Your task to perform on an android device: star an email in the gmail app Image 0: 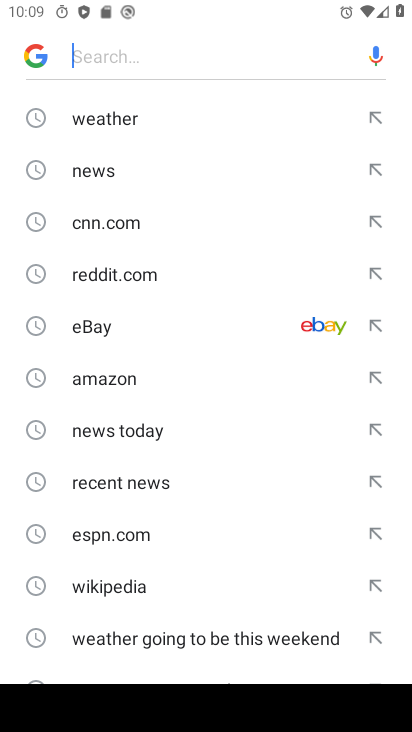
Step 0: press home button
Your task to perform on an android device: star an email in the gmail app Image 1: 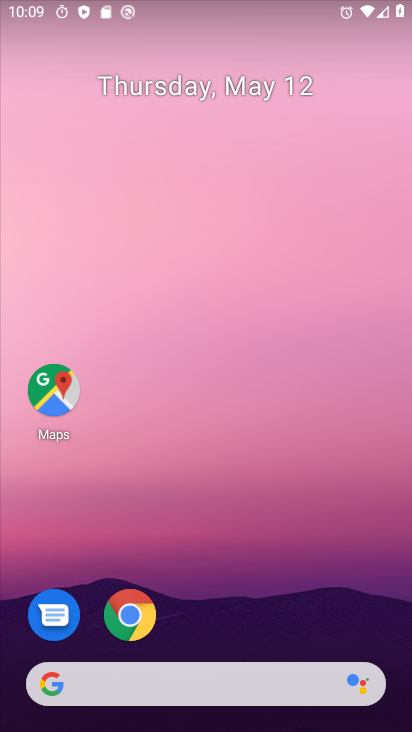
Step 1: drag from (286, 628) to (369, 134)
Your task to perform on an android device: star an email in the gmail app Image 2: 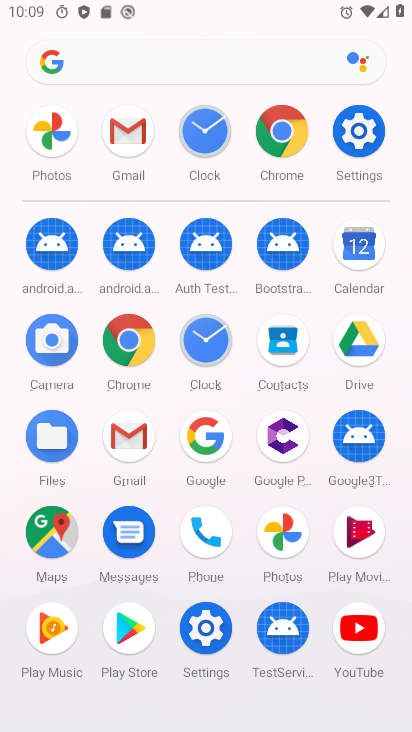
Step 2: click (135, 127)
Your task to perform on an android device: star an email in the gmail app Image 3: 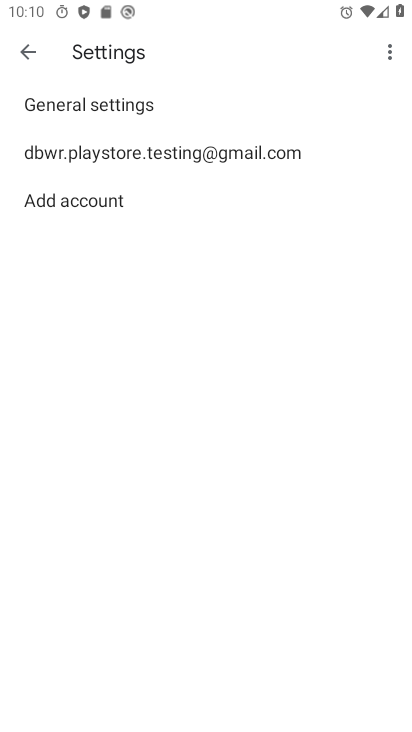
Step 3: click (134, 147)
Your task to perform on an android device: star an email in the gmail app Image 4: 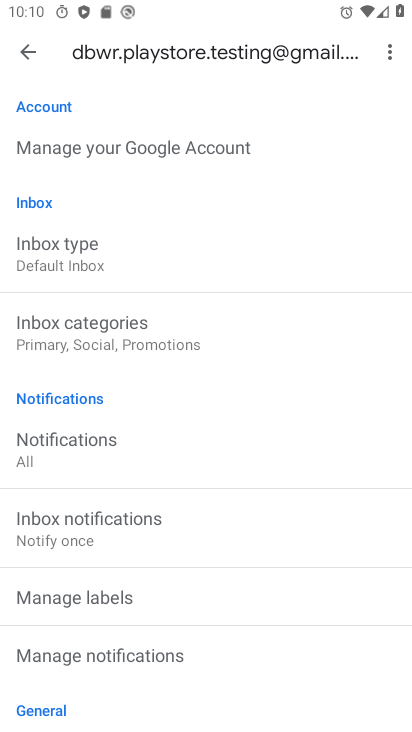
Step 4: click (40, 56)
Your task to perform on an android device: star an email in the gmail app Image 5: 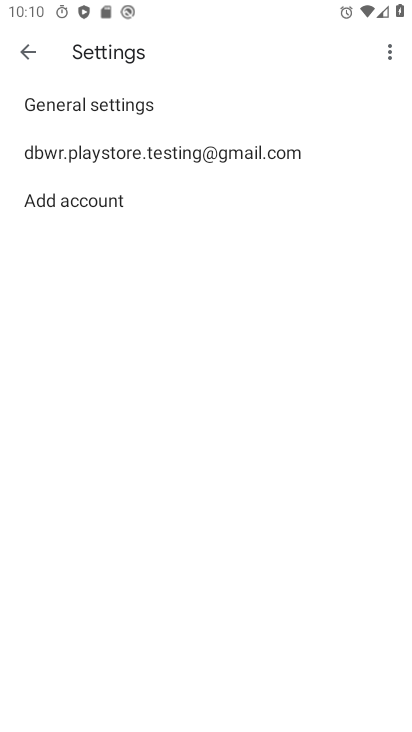
Step 5: click (38, 56)
Your task to perform on an android device: star an email in the gmail app Image 6: 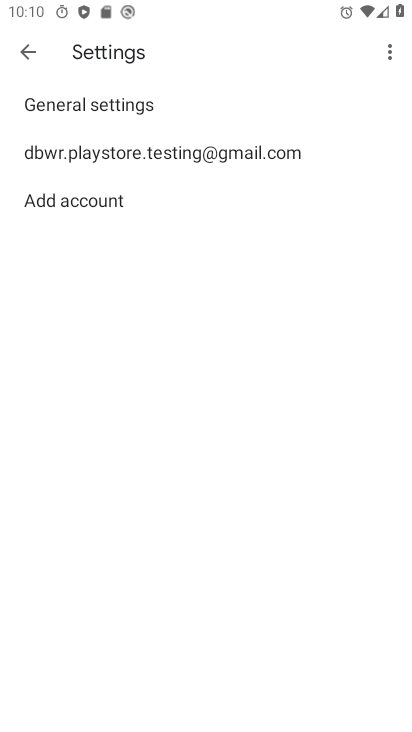
Step 6: click (38, 56)
Your task to perform on an android device: star an email in the gmail app Image 7: 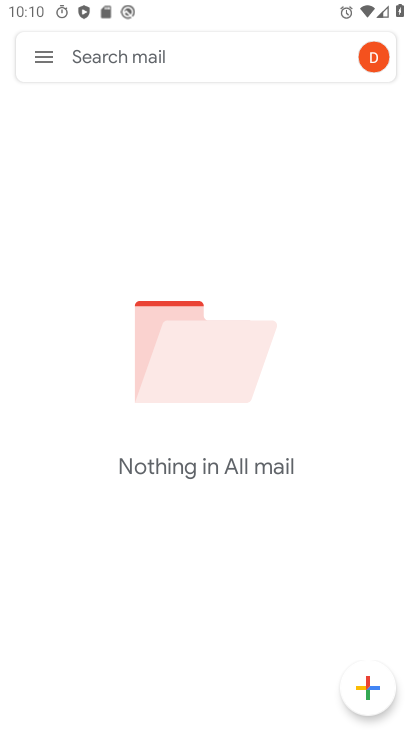
Step 7: click (36, 53)
Your task to perform on an android device: star an email in the gmail app Image 8: 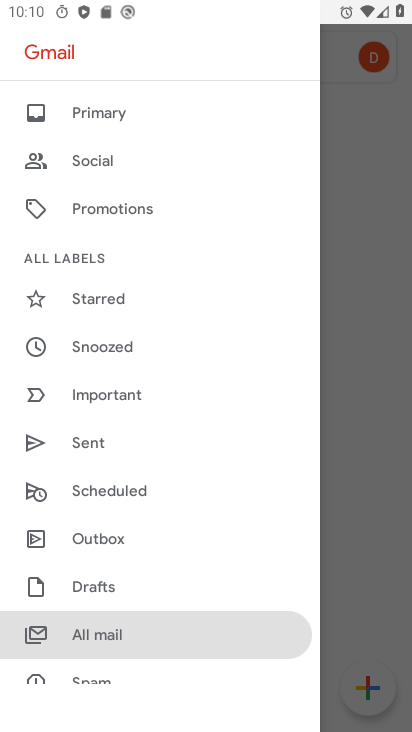
Step 8: click (105, 622)
Your task to perform on an android device: star an email in the gmail app Image 9: 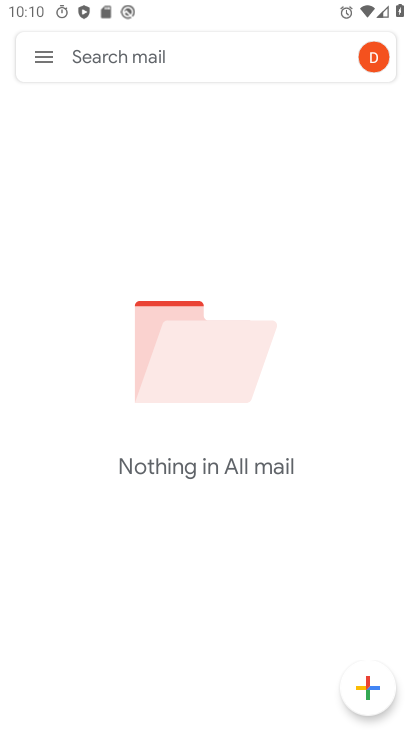
Step 9: task complete